Your task to perform on an android device: toggle data saver in the chrome app Image 0: 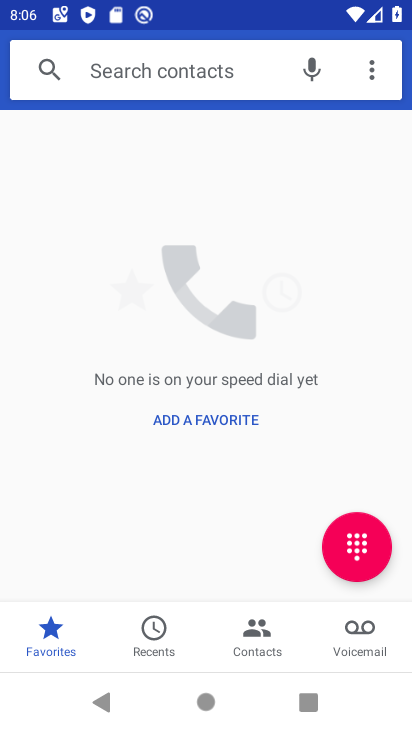
Step 0: press home button
Your task to perform on an android device: toggle data saver in the chrome app Image 1: 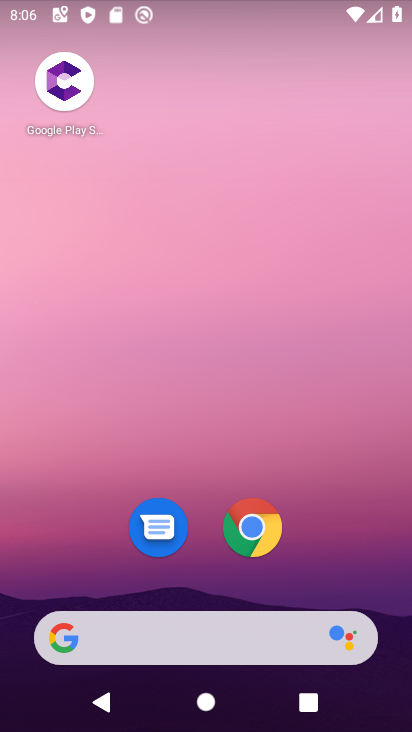
Step 1: click (243, 513)
Your task to perform on an android device: toggle data saver in the chrome app Image 2: 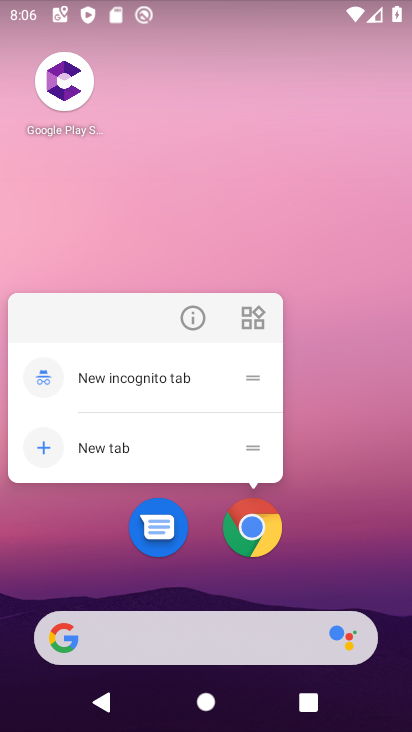
Step 2: click (259, 525)
Your task to perform on an android device: toggle data saver in the chrome app Image 3: 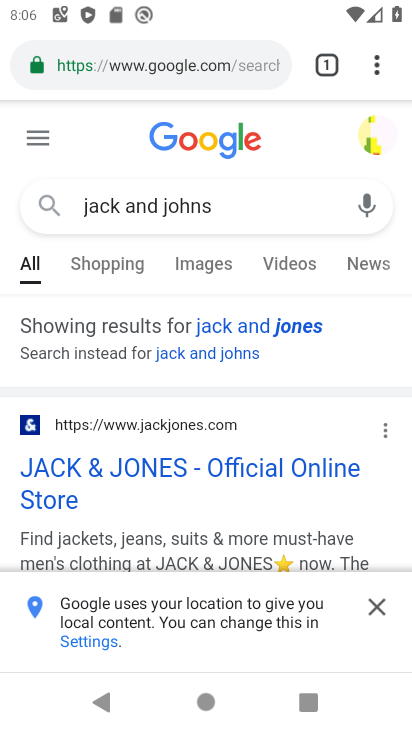
Step 3: drag from (370, 65) to (177, 554)
Your task to perform on an android device: toggle data saver in the chrome app Image 4: 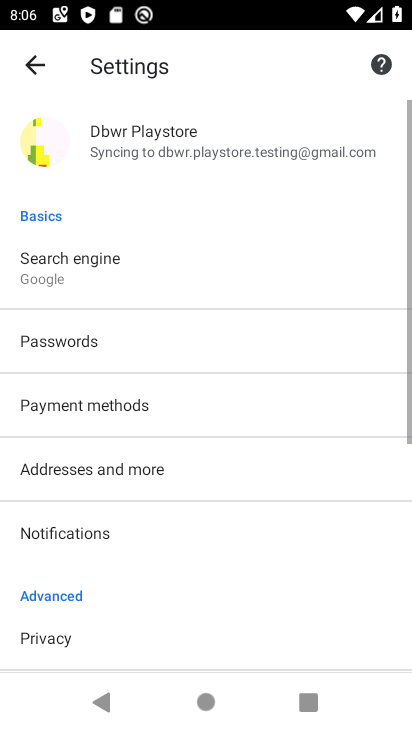
Step 4: drag from (179, 523) to (205, 245)
Your task to perform on an android device: toggle data saver in the chrome app Image 5: 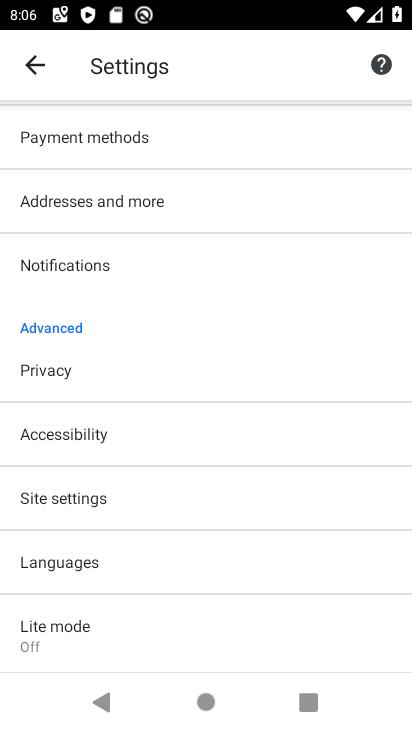
Step 5: click (109, 480)
Your task to perform on an android device: toggle data saver in the chrome app Image 6: 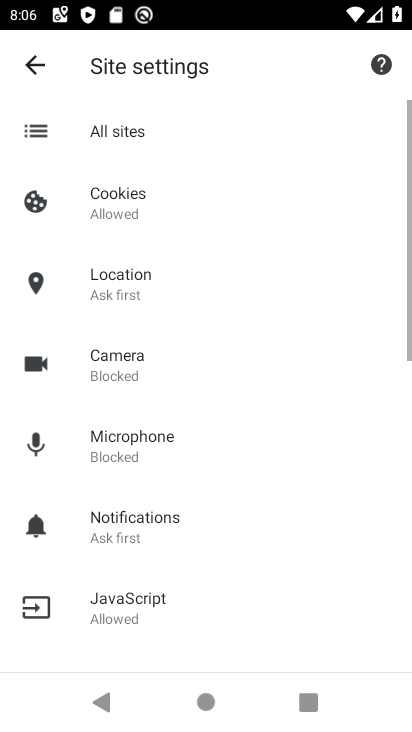
Step 6: click (102, 686)
Your task to perform on an android device: toggle data saver in the chrome app Image 7: 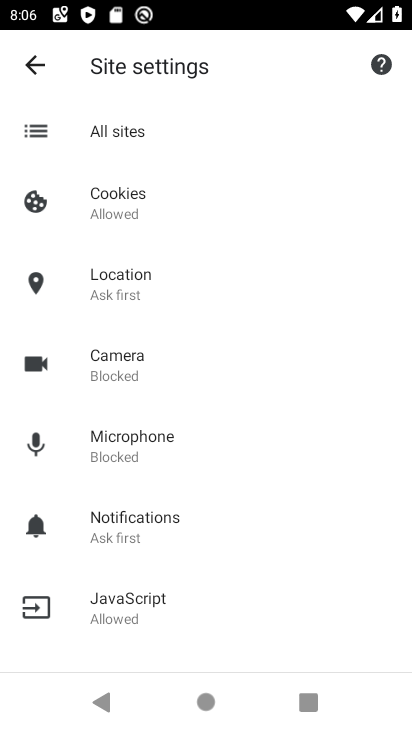
Step 7: click (25, 59)
Your task to perform on an android device: toggle data saver in the chrome app Image 8: 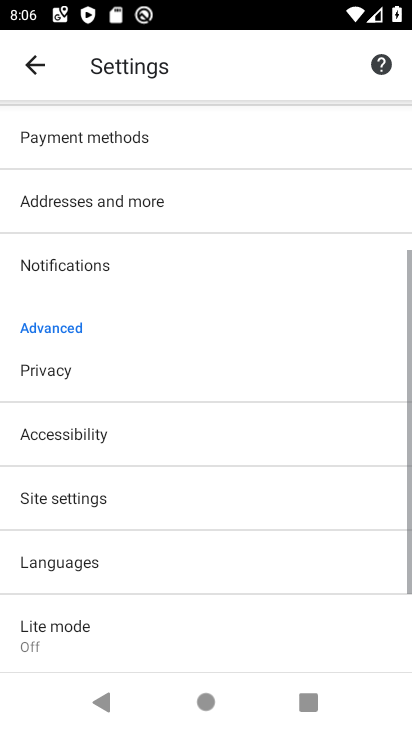
Step 8: click (146, 637)
Your task to perform on an android device: toggle data saver in the chrome app Image 9: 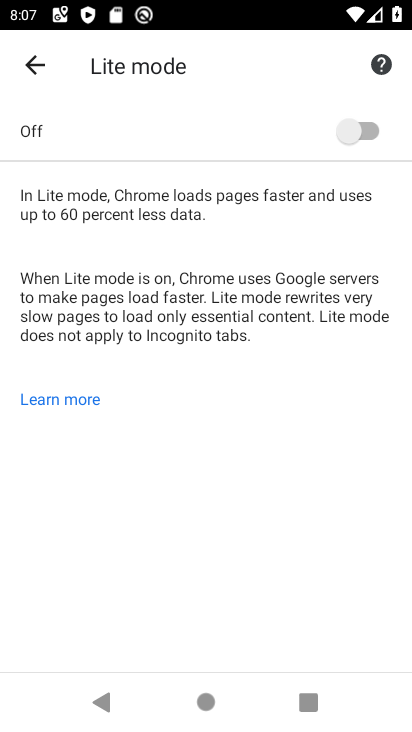
Step 9: click (365, 121)
Your task to perform on an android device: toggle data saver in the chrome app Image 10: 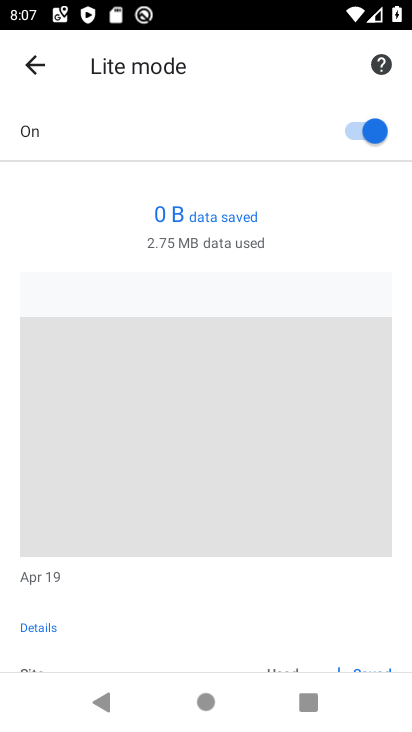
Step 10: task complete